Your task to perform on an android device: Show me popular videos on Youtube Image 0: 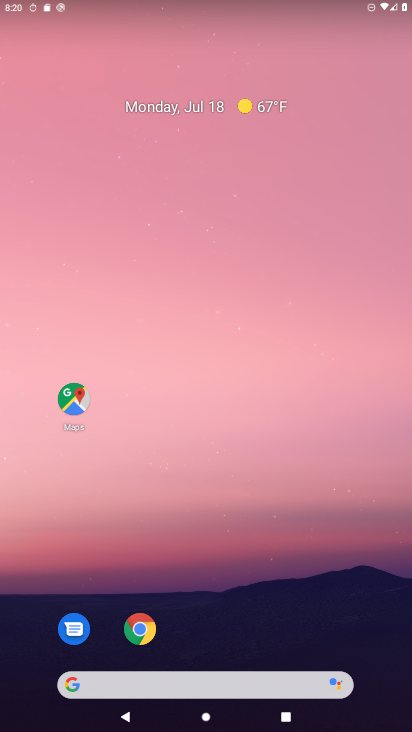
Step 0: drag from (184, 638) to (149, 104)
Your task to perform on an android device: Show me popular videos on Youtube Image 1: 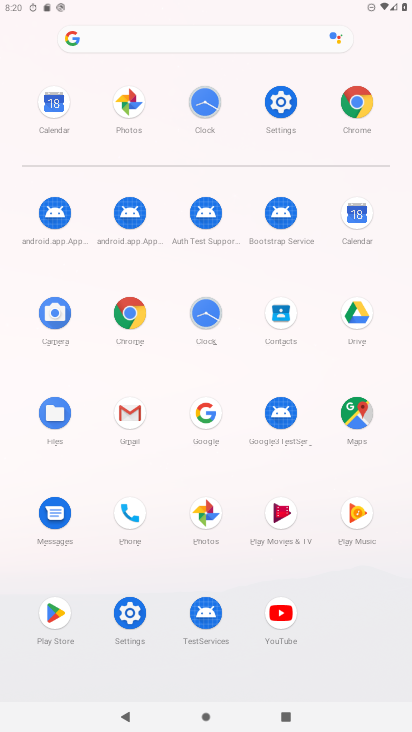
Step 1: click (287, 621)
Your task to perform on an android device: Show me popular videos on Youtube Image 2: 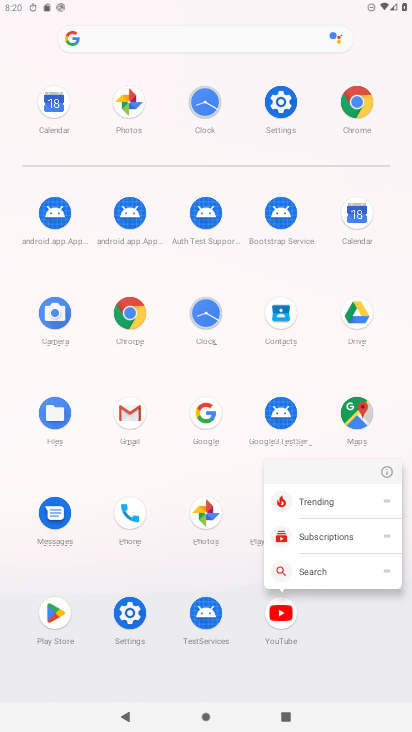
Step 2: click (275, 629)
Your task to perform on an android device: Show me popular videos on Youtube Image 3: 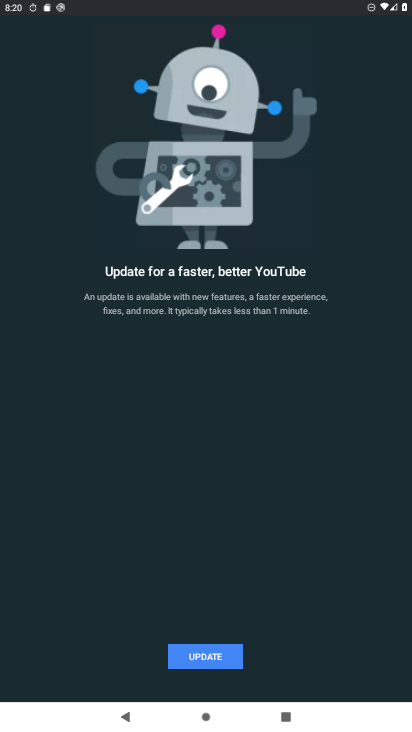
Step 3: drag from (216, 655) to (144, 655)
Your task to perform on an android device: Show me popular videos on Youtube Image 4: 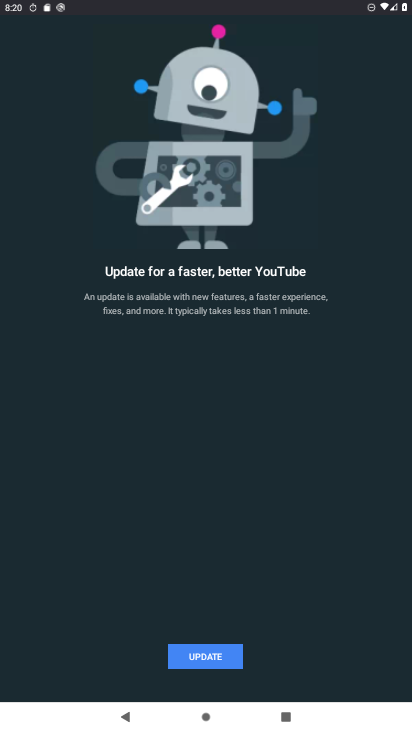
Step 4: click (197, 649)
Your task to perform on an android device: Show me popular videos on Youtube Image 5: 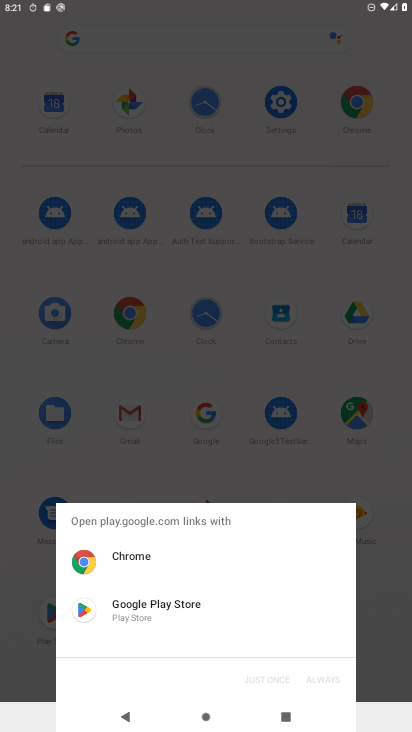
Step 5: click (211, 617)
Your task to perform on an android device: Show me popular videos on Youtube Image 6: 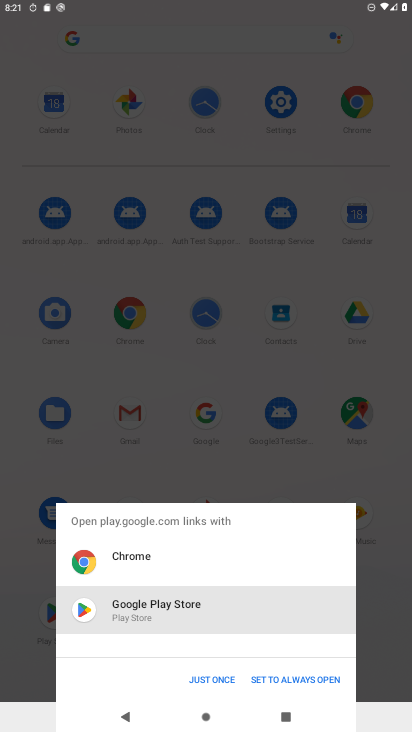
Step 6: click (211, 678)
Your task to perform on an android device: Show me popular videos on Youtube Image 7: 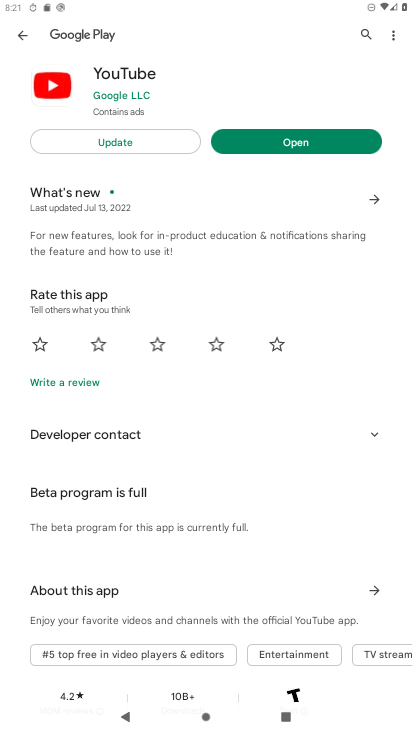
Step 7: click (124, 133)
Your task to perform on an android device: Show me popular videos on Youtube Image 8: 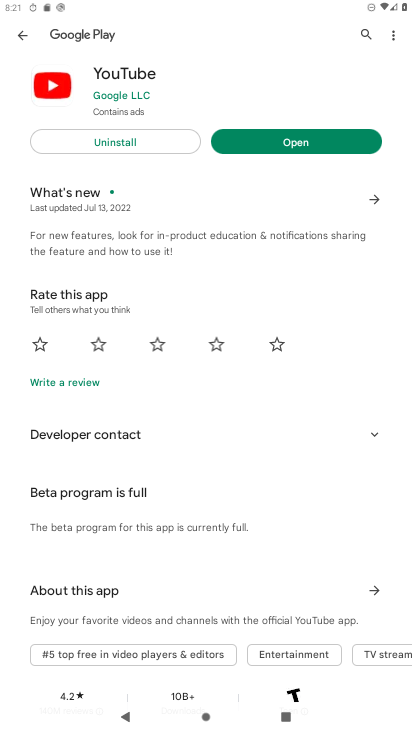
Step 8: click (268, 138)
Your task to perform on an android device: Show me popular videos on Youtube Image 9: 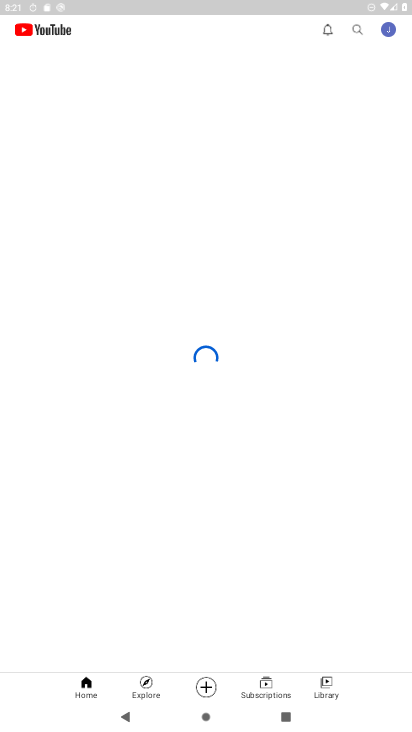
Step 9: click (168, 677)
Your task to perform on an android device: Show me popular videos on Youtube Image 10: 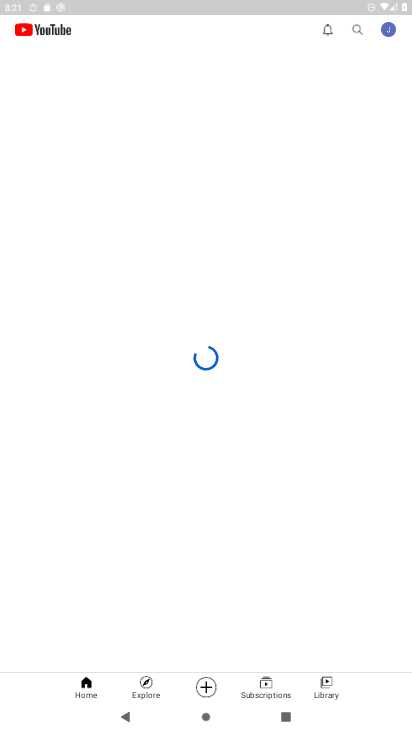
Step 10: click (147, 686)
Your task to perform on an android device: Show me popular videos on Youtube Image 11: 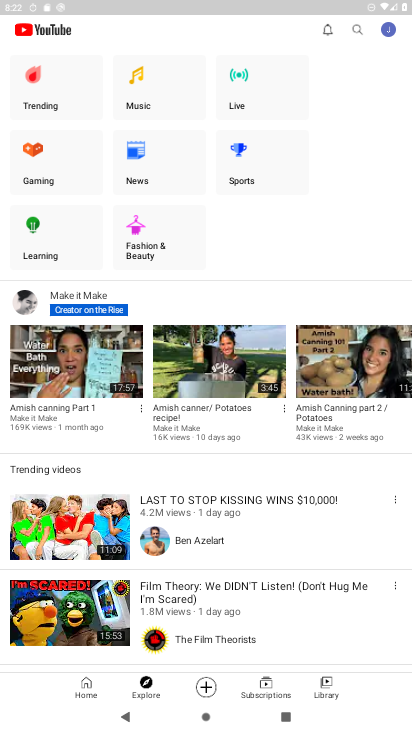
Step 11: click (36, 104)
Your task to perform on an android device: Show me popular videos on Youtube Image 12: 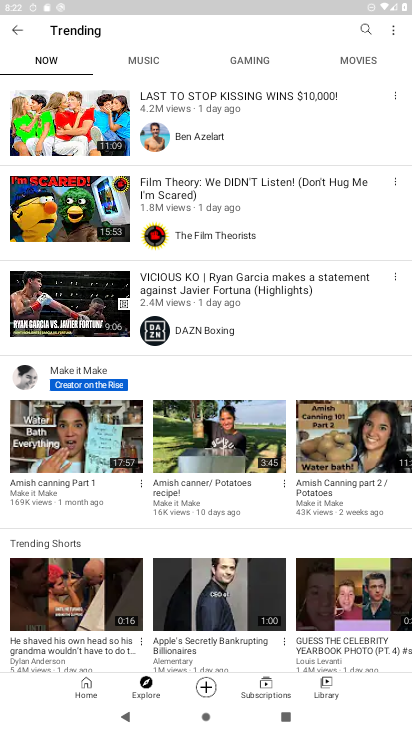
Step 12: task complete